Your task to perform on an android device: Go to Amazon Image 0: 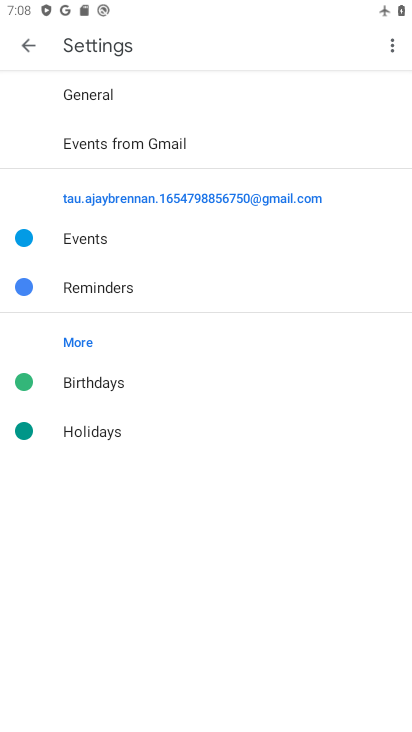
Step 0: press home button
Your task to perform on an android device: Go to Amazon Image 1: 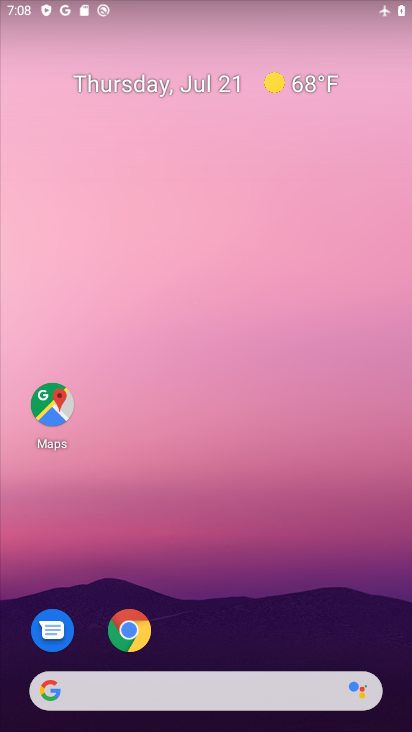
Step 1: drag from (212, 604) to (215, 20)
Your task to perform on an android device: Go to Amazon Image 2: 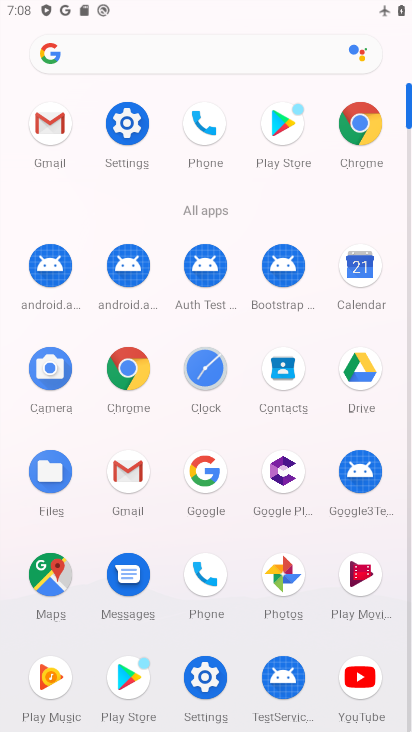
Step 2: click (349, 140)
Your task to perform on an android device: Go to Amazon Image 3: 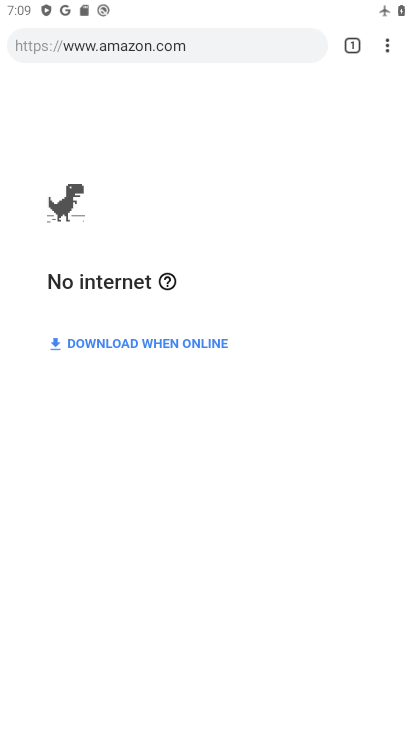
Step 3: click (175, 48)
Your task to perform on an android device: Go to Amazon Image 4: 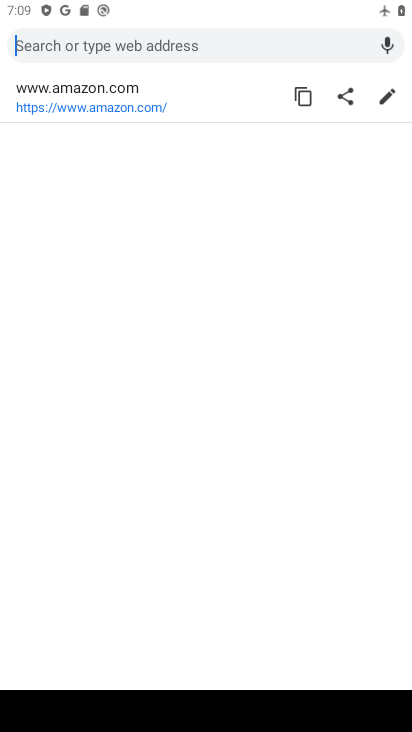
Step 4: task complete